Your task to perform on an android device: refresh tabs in the chrome app Image 0: 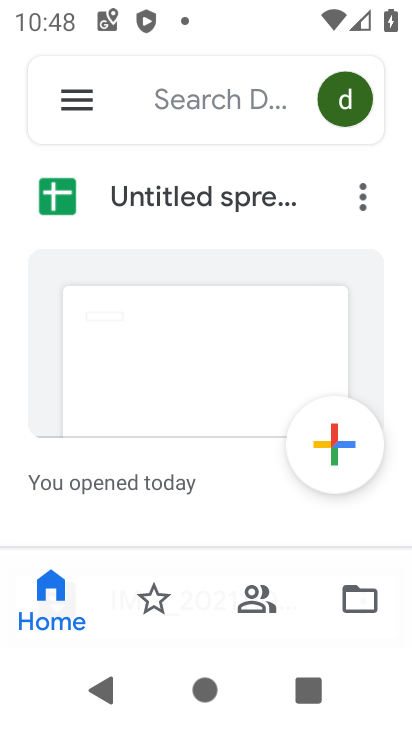
Step 0: press back button
Your task to perform on an android device: refresh tabs in the chrome app Image 1: 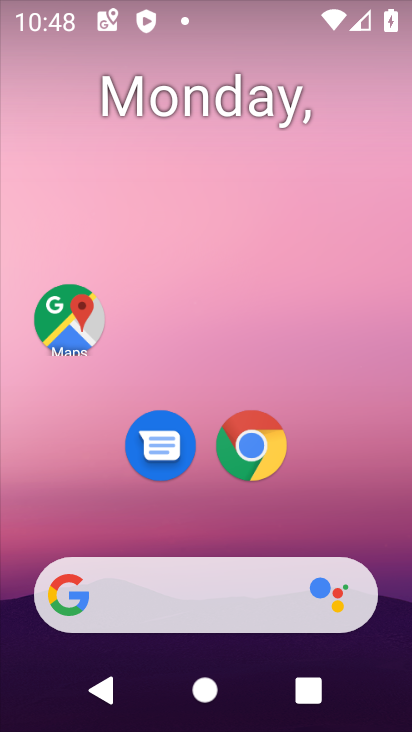
Step 1: click (255, 438)
Your task to perform on an android device: refresh tabs in the chrome app Image 2: 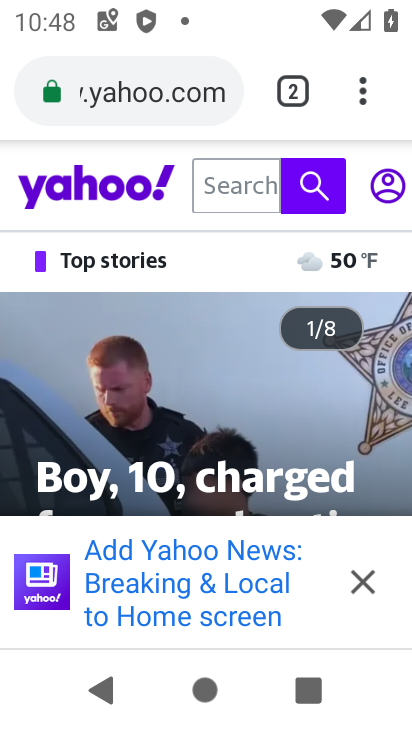
Step 2: task complete